Your task to perform on an android device: What's the weather today? Image 0: 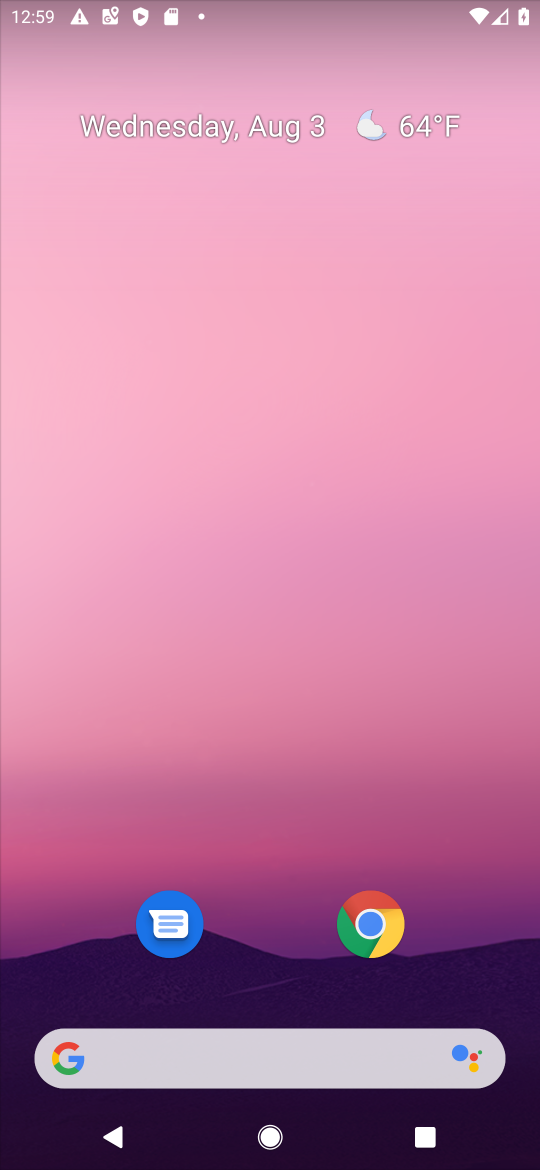
Step 0: click (229, 1064)
Your task to perform on an android device: What's the weather today? Image 1: 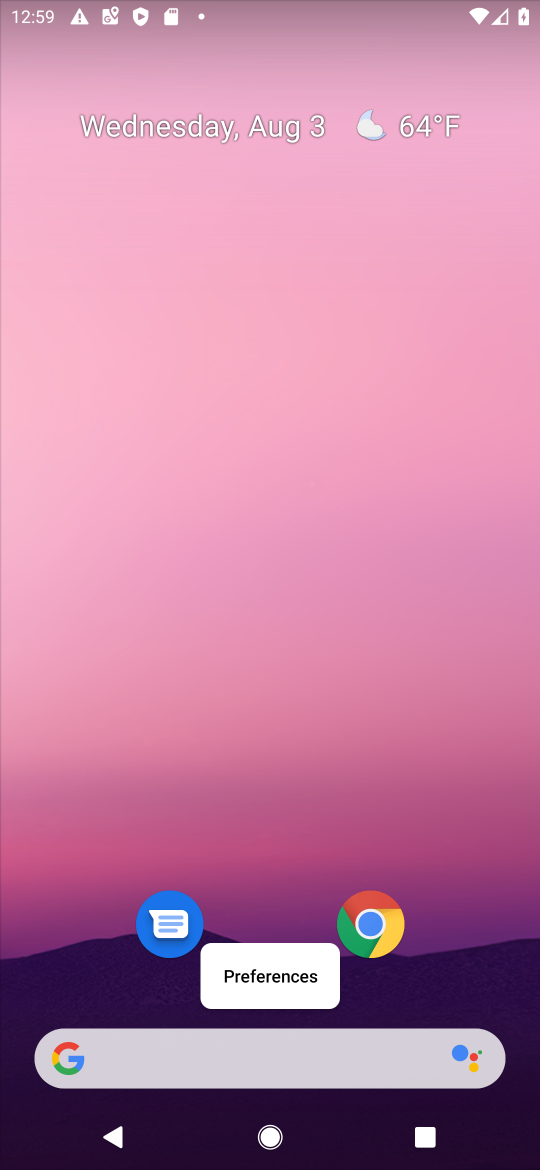
Step 1: click (194, 1052)
Your task to perform on an android device: What's the weather today? Image 2: 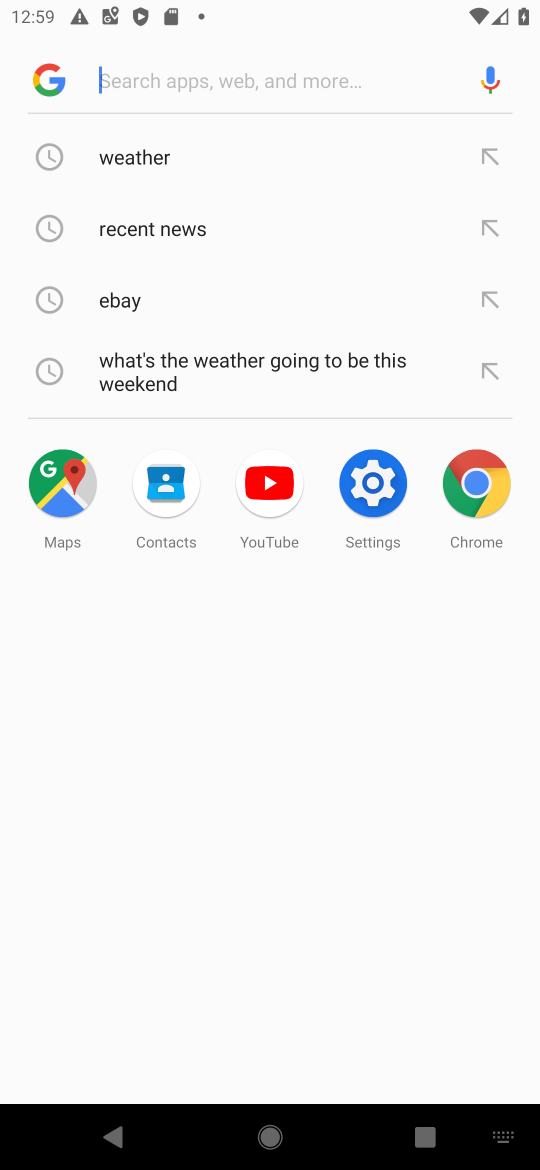
Step 2: click (166, 153)
Your task to perform on an android device: What's the weather today? Image 3: 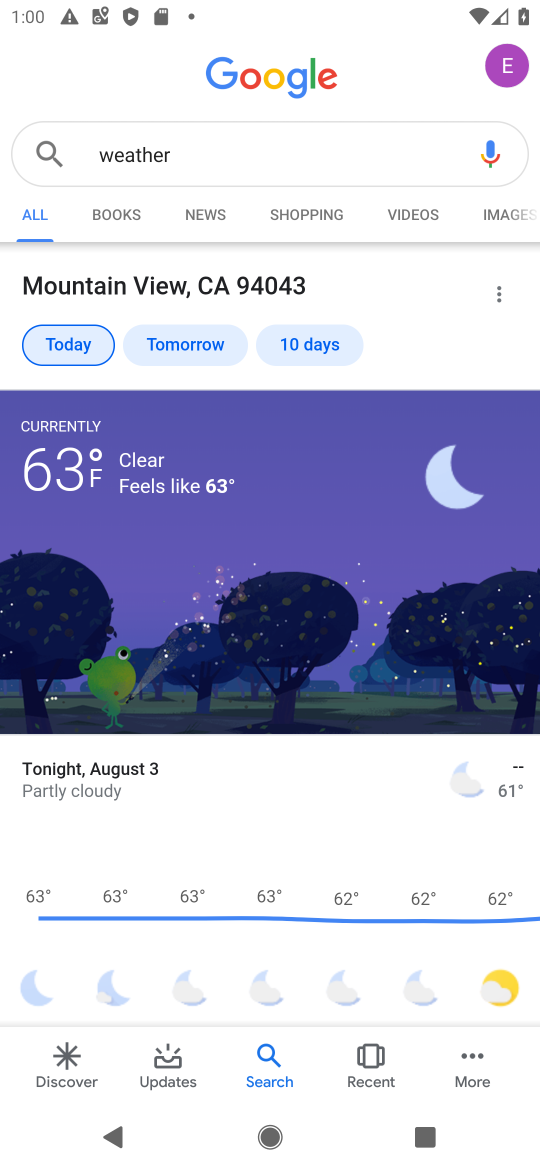
Step 3: click (49, 350)
Your task to perform on an android device: What's the weather today? Image 4: 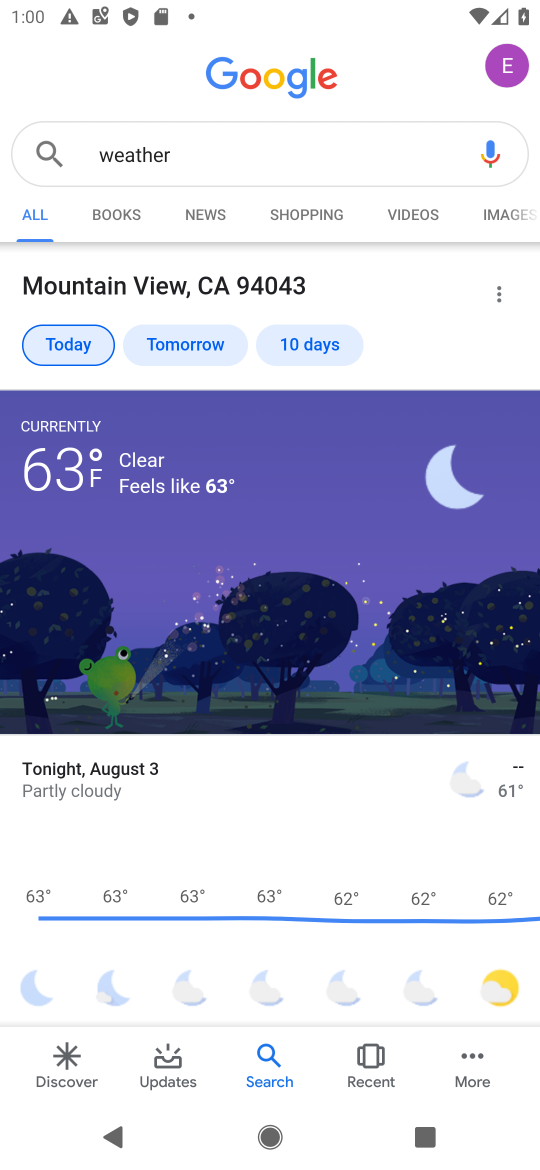
Step 4: task complete